Your task to perform on an android device: See recent photos Image 0: 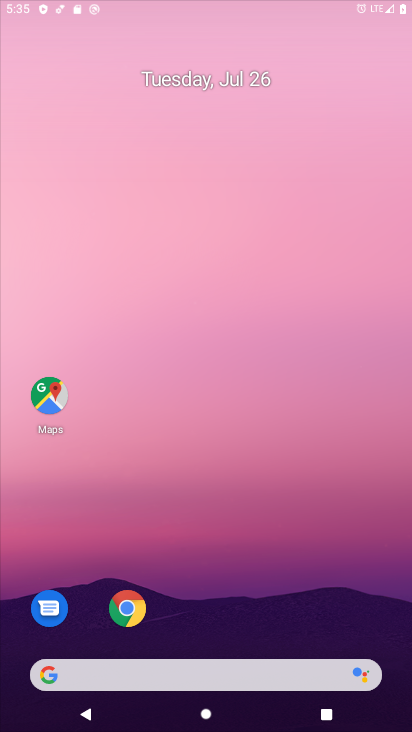
Step 0: drag from (352, 603) to (159, 42)
Your task to perform on an android device: See recent photos Image 1: 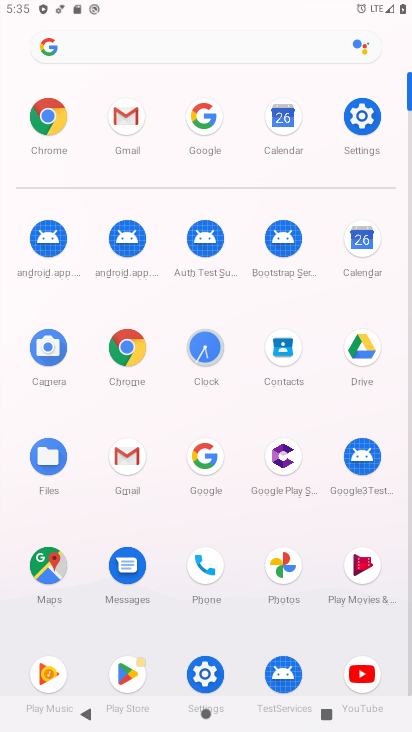
Step 1: click (280, 579)
Your task to perform on an android device: See recent photos Image 2: 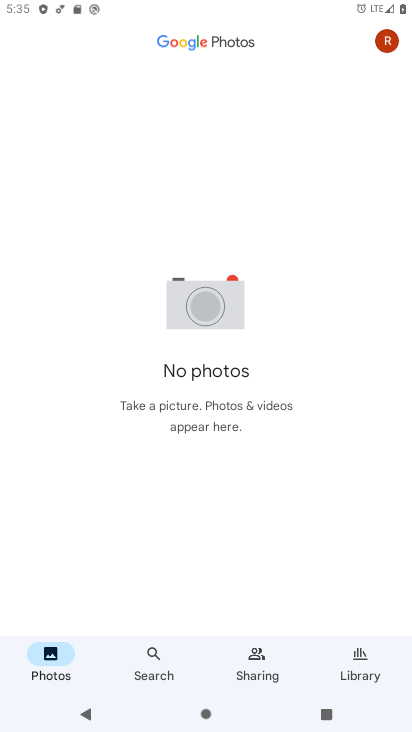
Step 2: task complete